Your task to perform on an android device: Go to Maps Image 0: 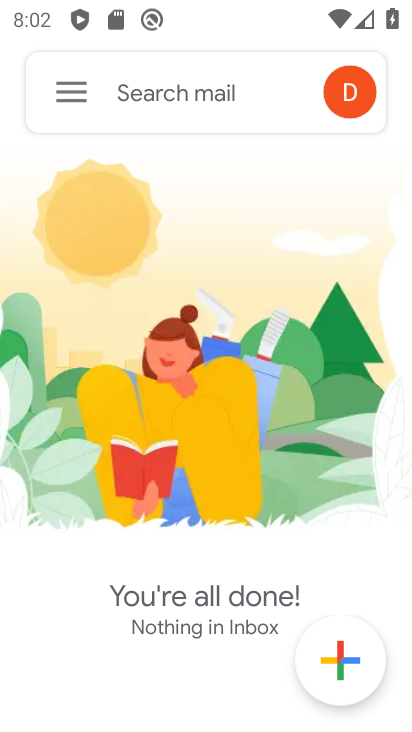
Step 0: press home button
Your task to perform on an android device: Go to Maps Image 1: 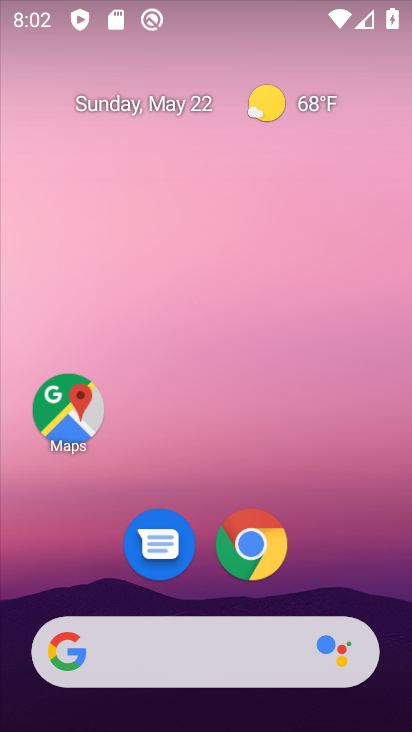
Step 1: click (75, 417)
Your task to perform on an android device: Go to Maps Image 2: 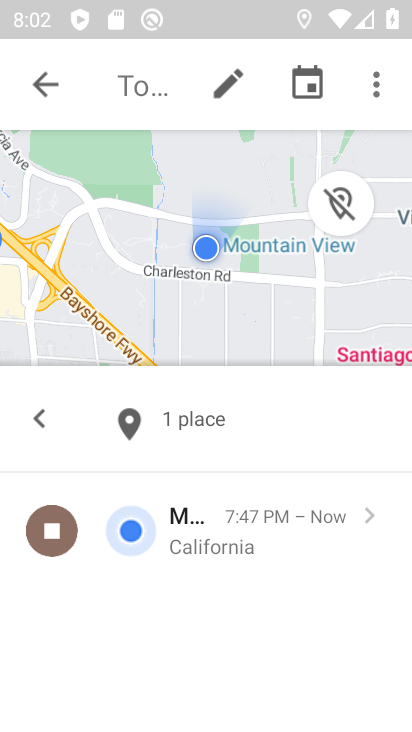
Step 2: task complete